Your task to perform on an android device: Find coffee shops on Maps Image 0: 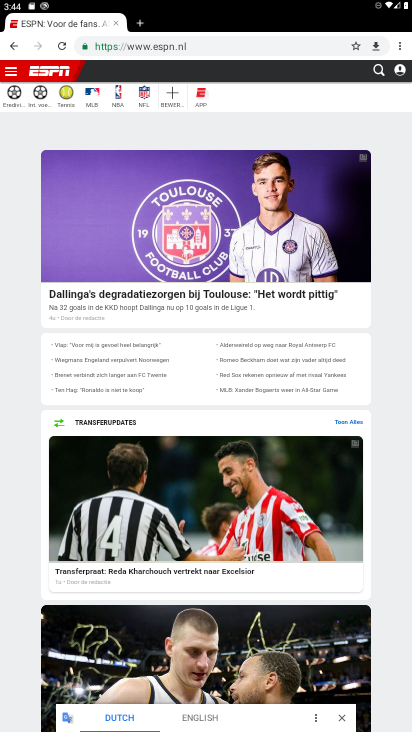
Step 0: press home button
Your task to perform on an android device: Find coffee shops on Maps Image 1: 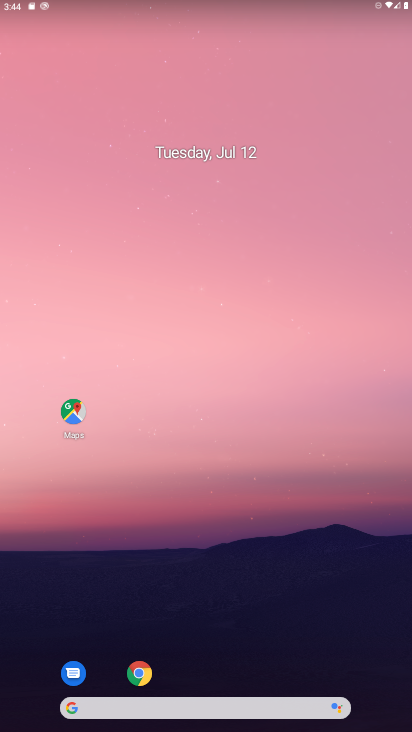
Step 1: click (72, 412)
Your task to perform on an android device: Find coffee shops on Maps Image 2: 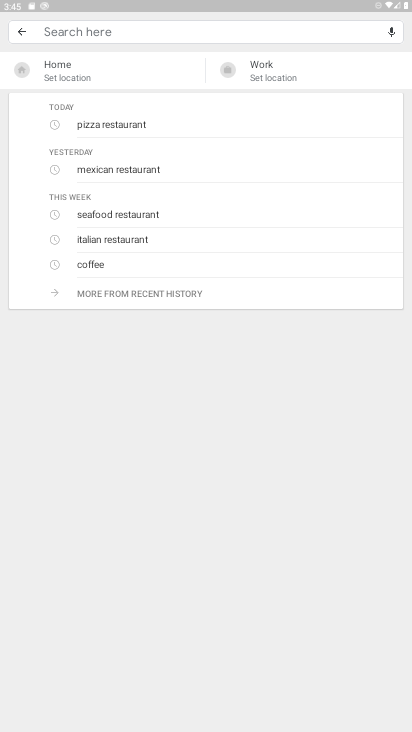
Step 2: click (88, 27)
Your task to perform on an android device: Find coffee shops on Maps Image 3: 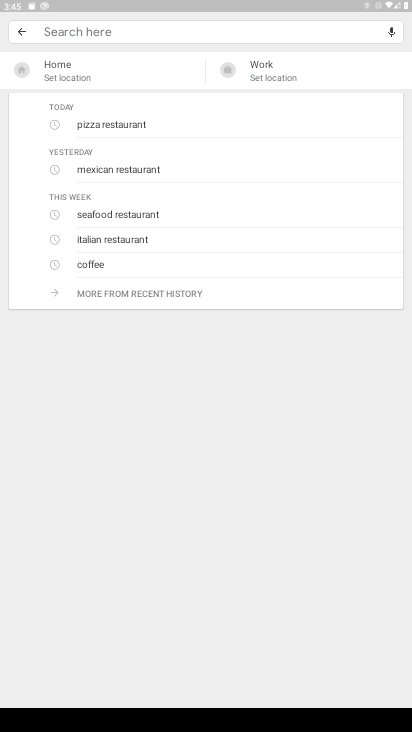
Step 3: type "coffee shops"
Your task to perform on an android device: Find coffee shops on Maps Image 4: 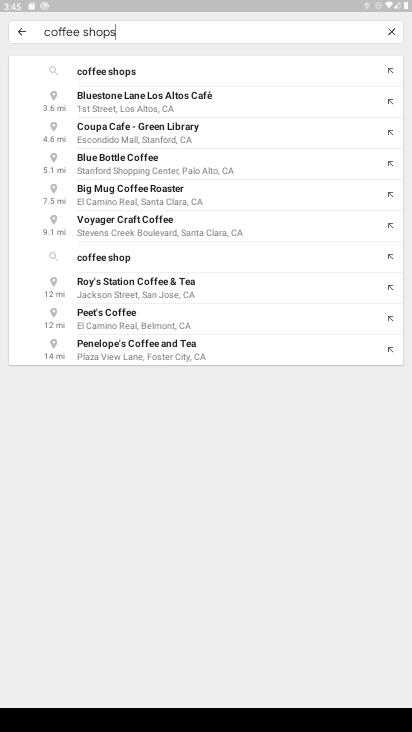
Step 4: click (130, 69)
Your task to perform on an android device: Find coffee shops on Maps Image 5: 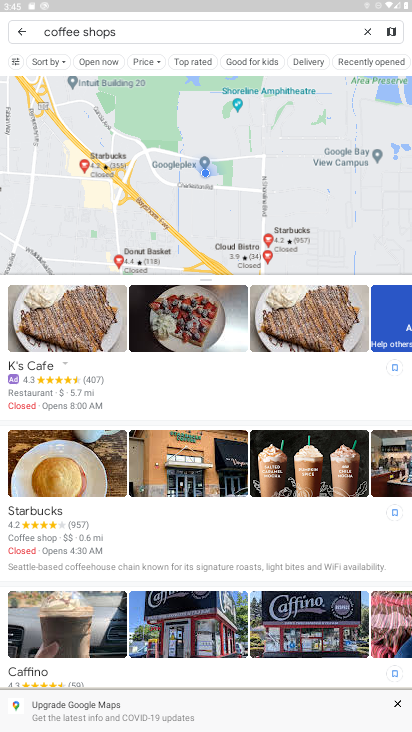
Step 5: task complete